Your task to perform on an android device: check out phone information Image 0: 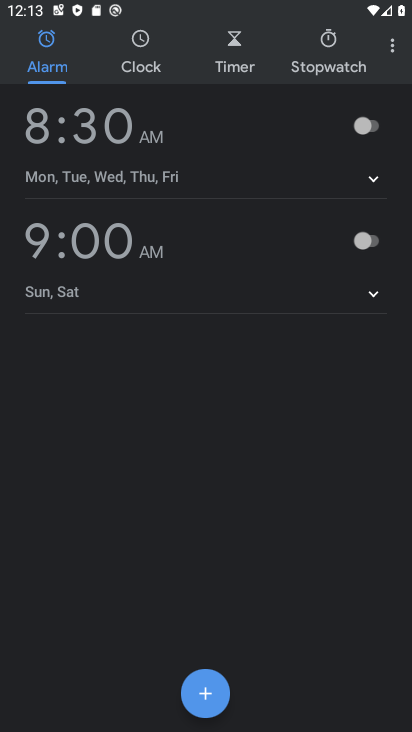
Step 0: press home button
Your task to perform on an android device: check out phone information Image 1: 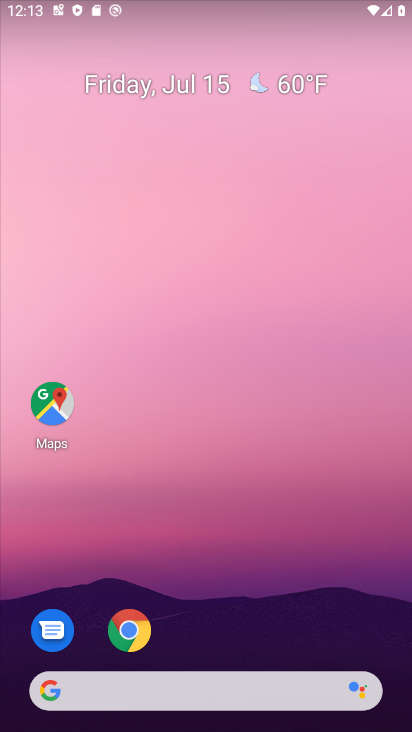
Step 1: drag from (75, 598) to (225, 331)
Your task to perform on an android device: check out phone information Image 2: 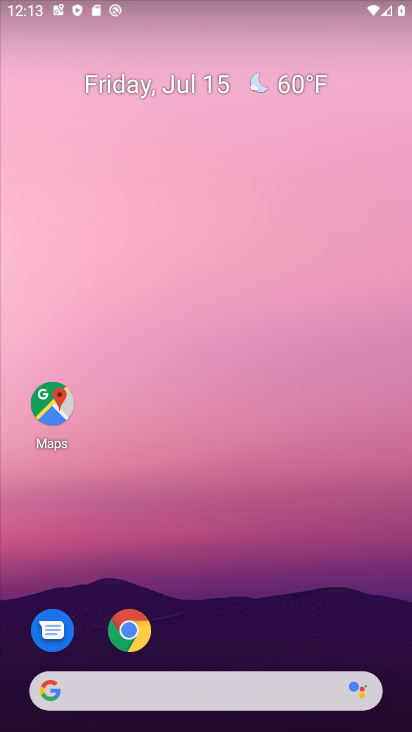
Step 2: drag from (68, 566) to (258, 145)
Your task to perform on an android device: check out phone information Image 3: 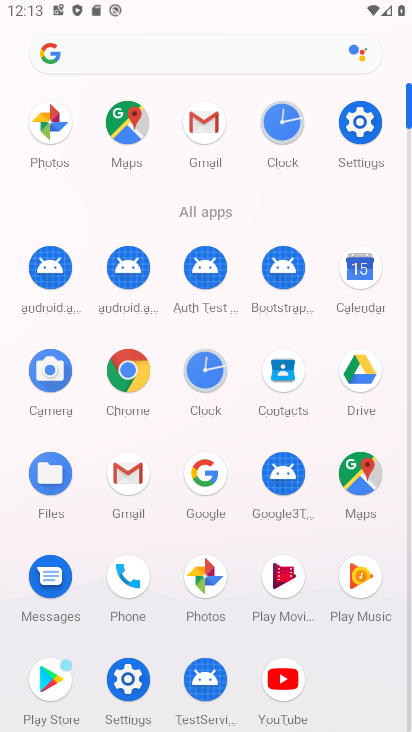
Step 3: click (280, 386)
Your task to perform on an android device: check out phone information Image 4: 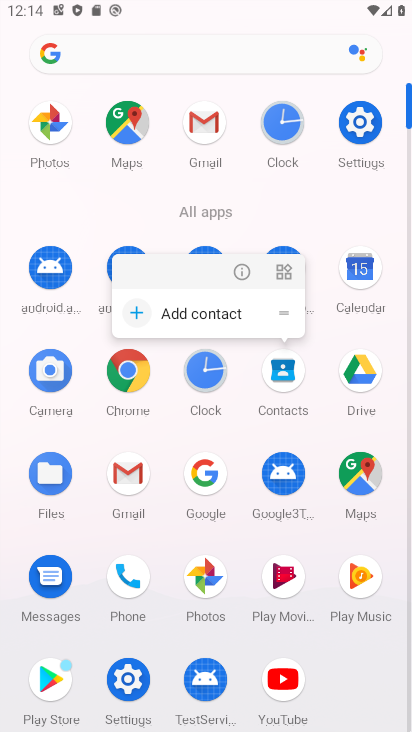
Step 4: click (288, 383)
Your task to perform on an android device: check out phone information Image 5: 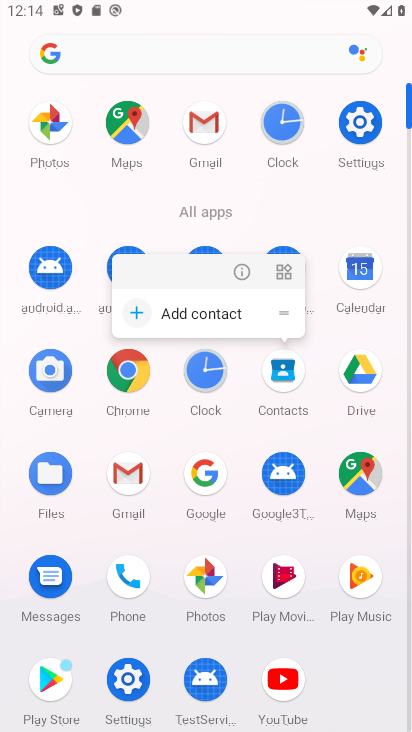
Step 5: click (288, 383)
Your task to perform on an android device: check out phone information Image 6: 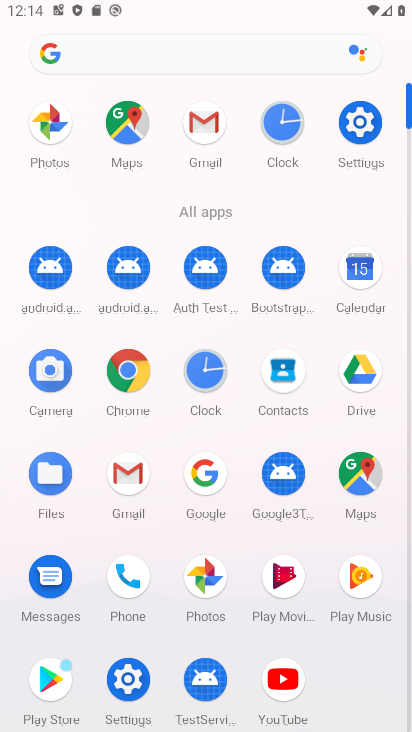
Step 6: click (287, 382)
Your task to perform on an android device: check out phone information Image 7: 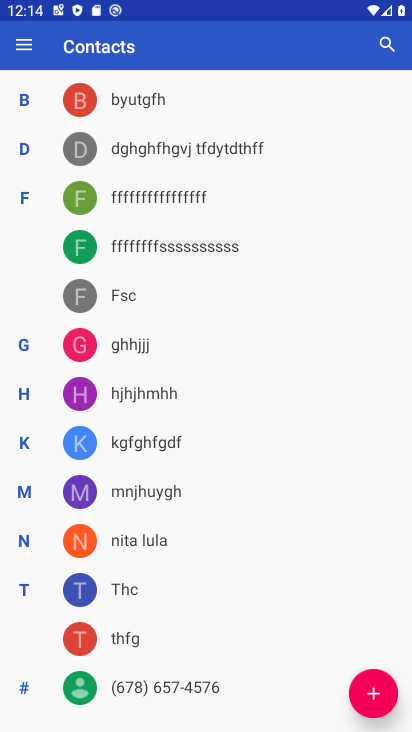
Step 7: task complete